Your task to perform on an android device: change the upload size in google photos Image 0: 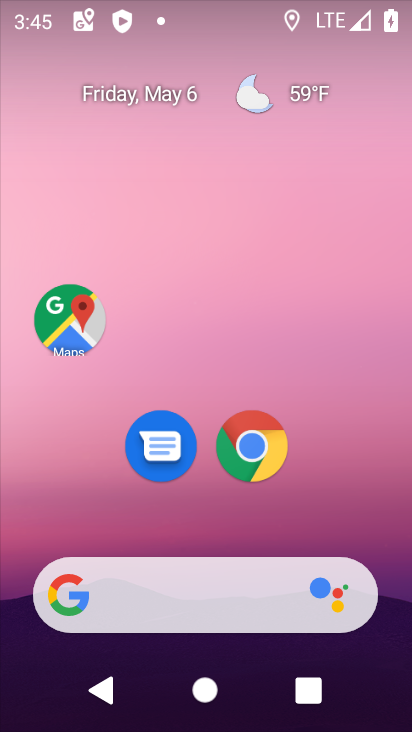
Step 0: drag from (294, 435) to (281, 148)
Your task to perform on an android device: change the upload size in google photos Image 1: 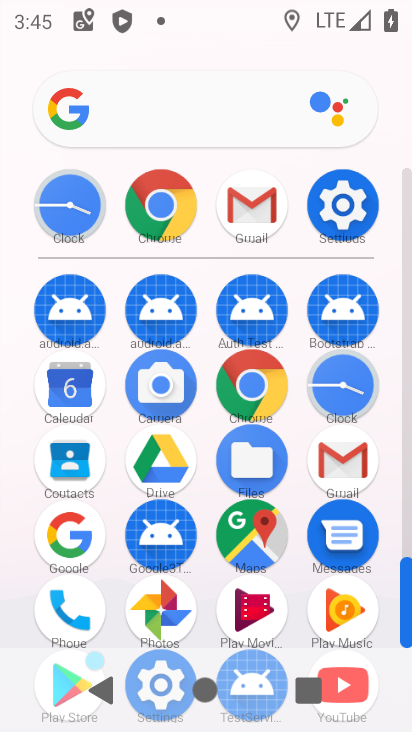
Step 1: click (170, 600)
Your task to perform on an android device: change the upload size in google photos Image 2: 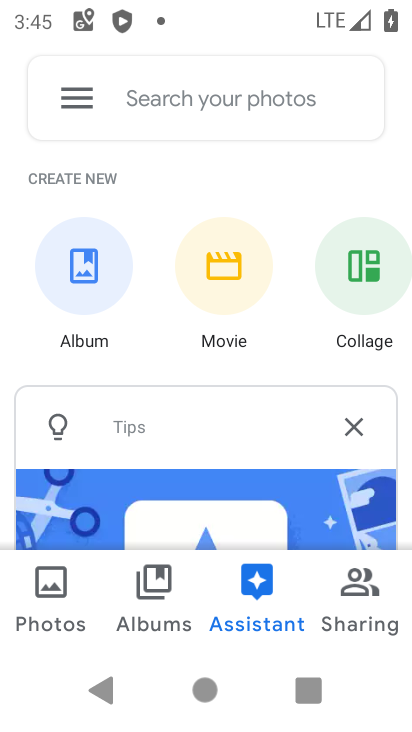
Step 2: click (79, 96)
Your task to perform on an android device: change the upload size in google photos Image 3: 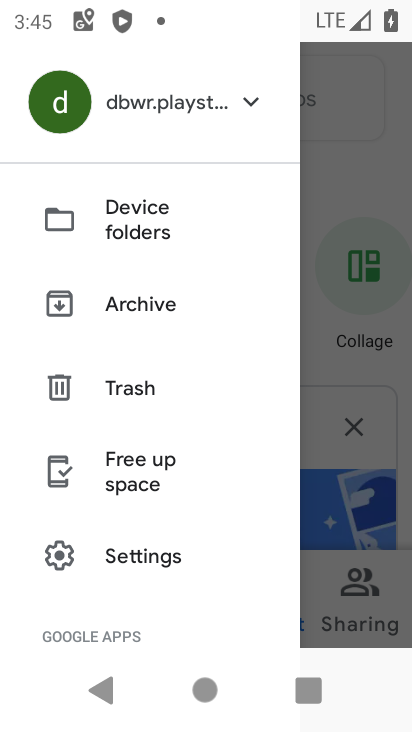
Step 3: click (140, 563)
Your task to perform on an android device: change the upload size in google photos Image 4: 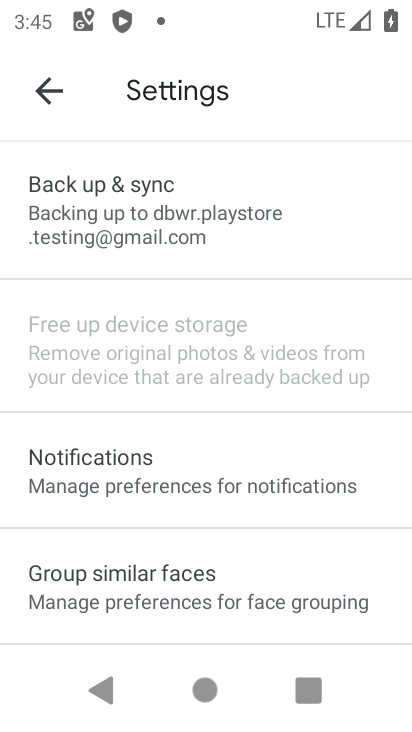
Step 4: click (164, 234)
Your task to perform on an android device: change the upload size in google photos Image 5: 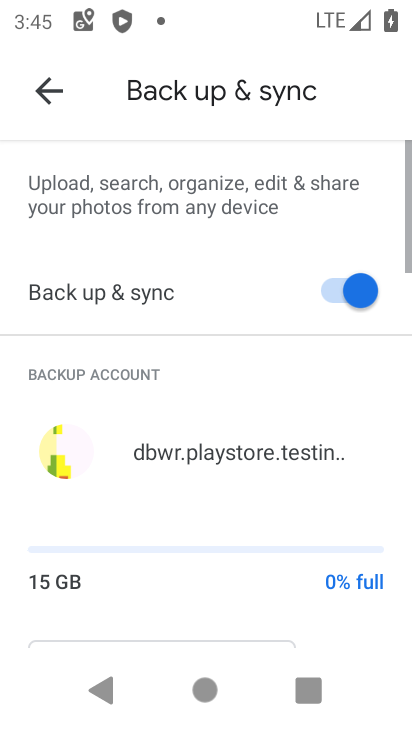
Step 5: drag from (182, 596) to (198, 332)
Your task to perform on an android device: change the upload size in google photos Image 6: 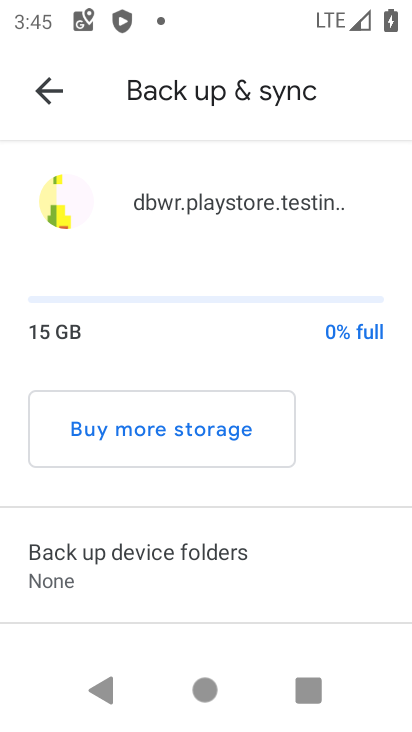
Step 6: drag from (227, 519) to (260, 196)
Your task to perform on an android device: change the upload size in google photos Image 7: 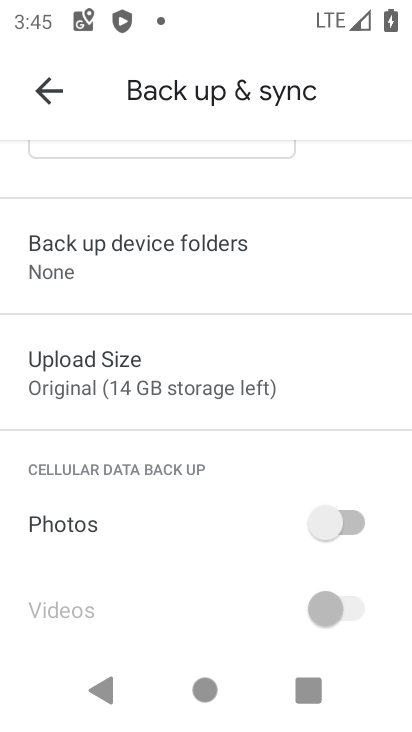
Step 7: click (177, 378)
Your task to perform on an android device: change the upload size in google photos Image 8: 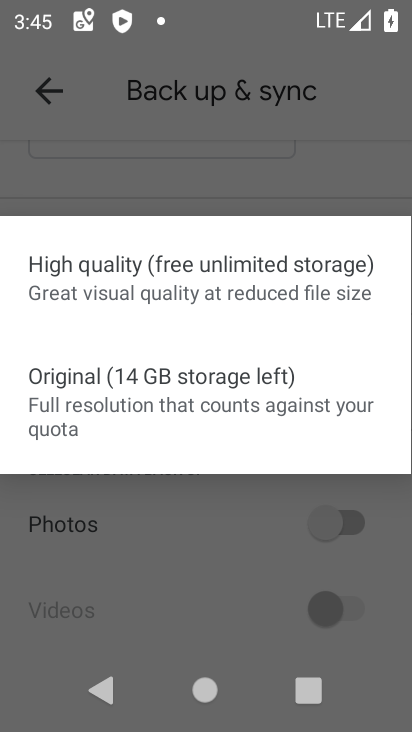
Step 8: click (205, 290)
Your task to perform on an android device: change the upload size in google photos Image 9: 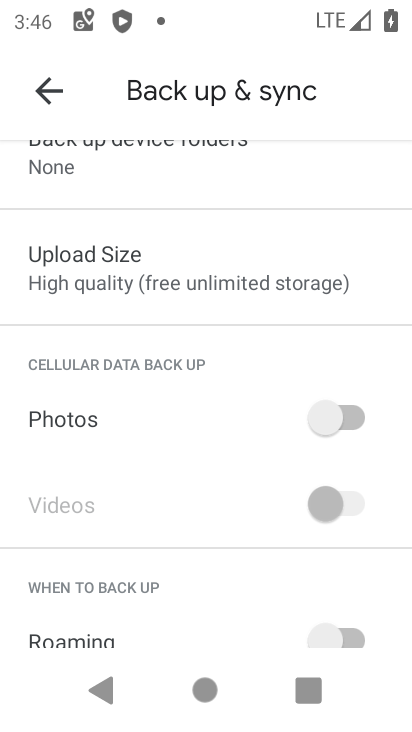
Step 9: task complete